Your task to perform on an android device: Open calendar and show me the fourth week of next month Image 0: 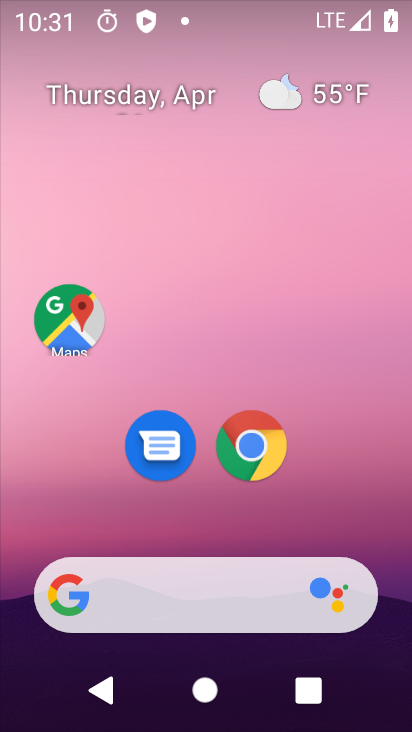
Step 0: drag from (347, 530) to (365, 1)
Your task to perform on an android device: Open calendar and show me the fourth week of next month Image 1: 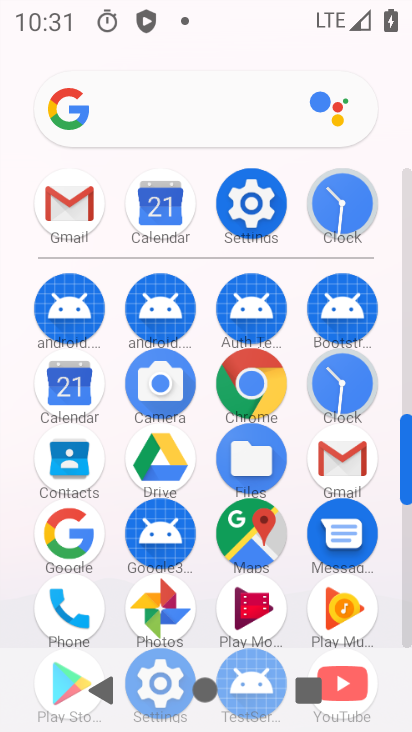
Step 1: click (71, 380)
Your task to perform on an android device: Open calendar and show me the fourth week of next month Image 2: 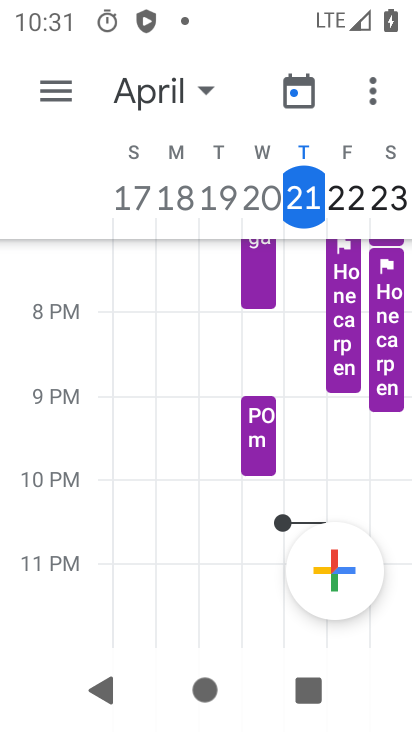
Step 2: click (196, 93)
Your task to perform on an android device: Open calendar and show me the fourth week of next month Image 3: 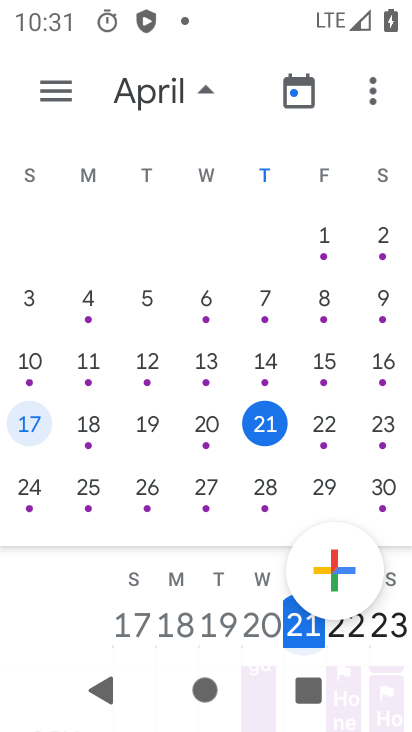
Step 3: task complete